Your task to perform on an android device: Go to Android settings Image 0: 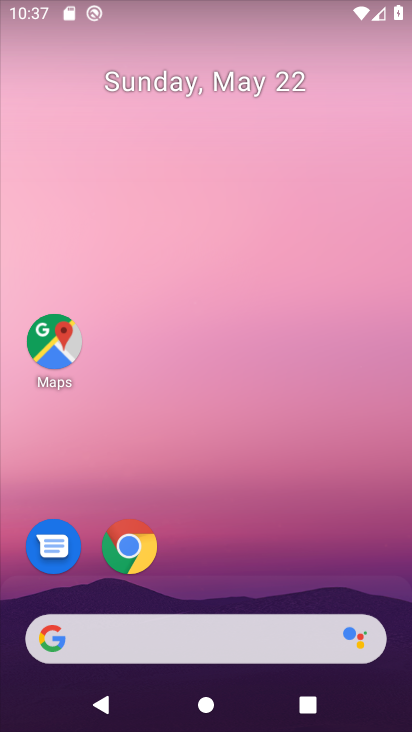
Step 0: drag from (228, 663) to (284, 69)
Your task to perform on an android device: Go to Android settings Image 1: 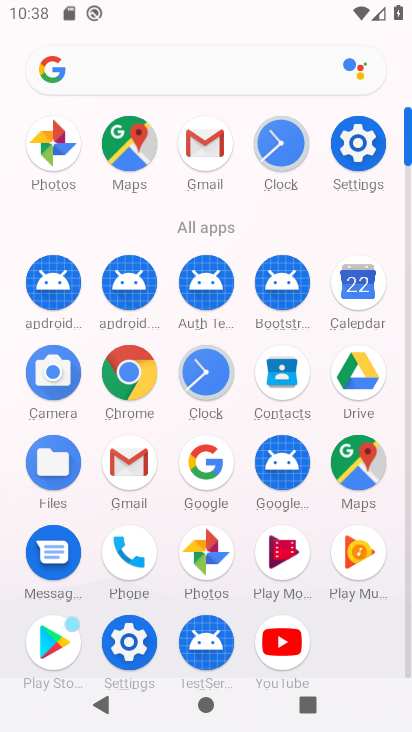
Step 1: click (362, 179)
Your task to perform on an android device: Go to Android settings Image 2: 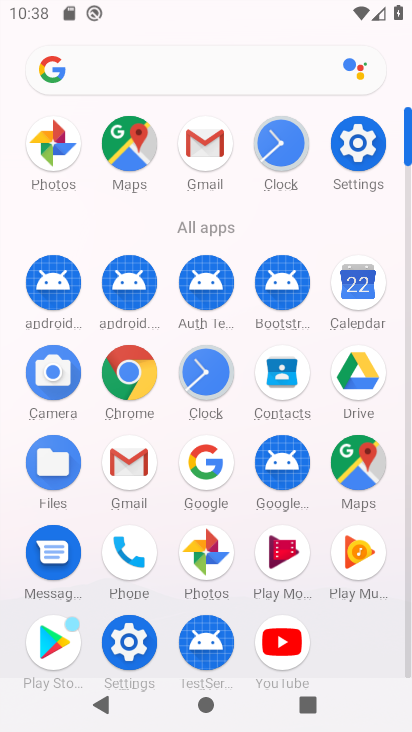
Step 2: click (364, 149)
Your task to perform on an android device: Go to Android settings Image 3: 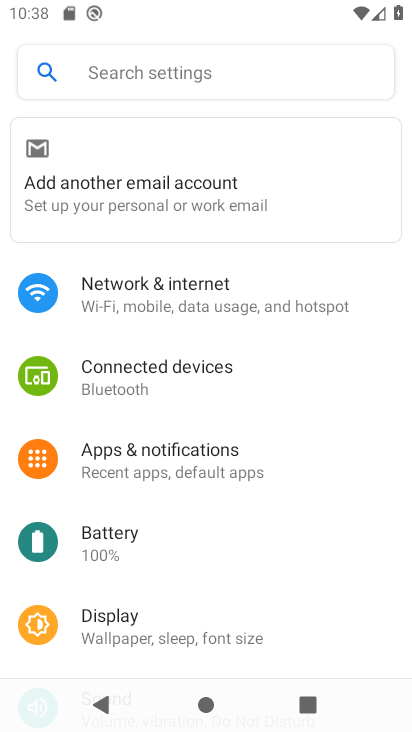
Step 3: drag from (224, 534) to (223, 184)
Your task to perform on an android device: Go to Android settings Image 4: 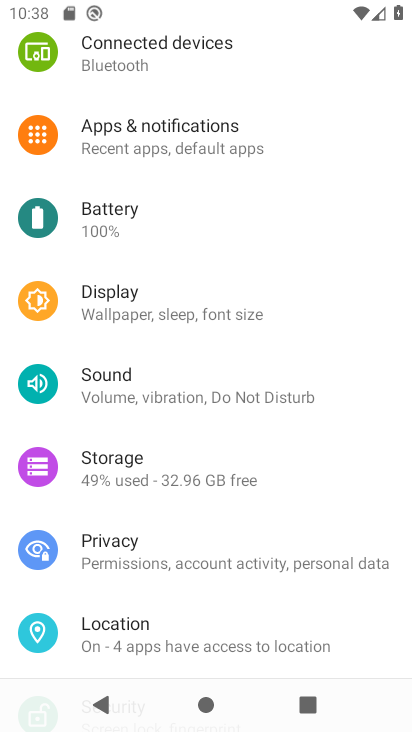
Step 4: drag from (275, 197) to (302, 93)
Your task to perform on an android device: Go to Android settings Image 5: 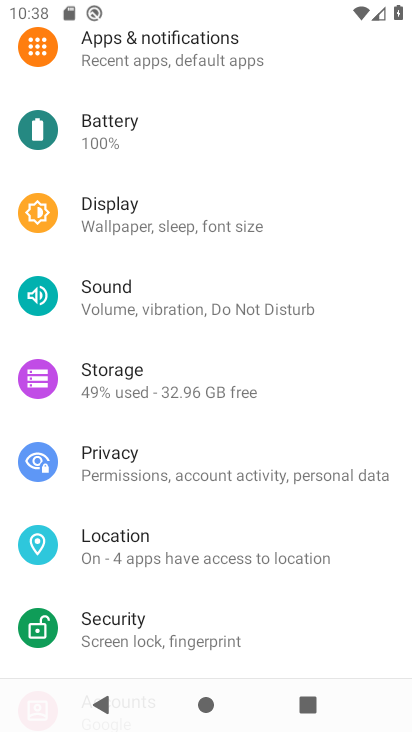
Step 5: drag from (235, 474) to (292, 108)
Your task to perform on an android device: Go to Android settings Image 6: 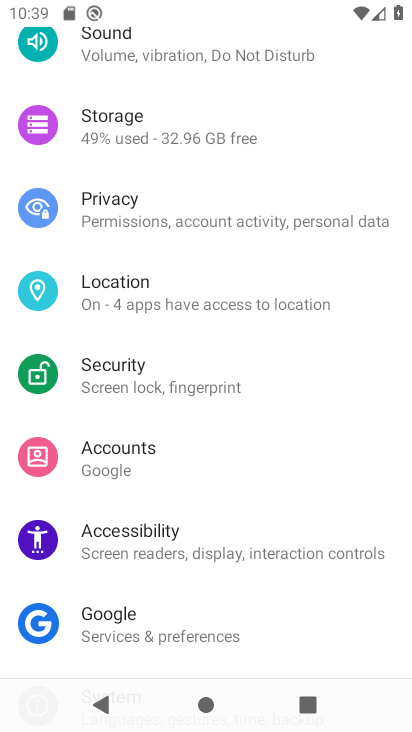
Step 6: drag from (196, 558) to (305, 40)
Your task to perform on an android device: Go to Android settings Image 7: 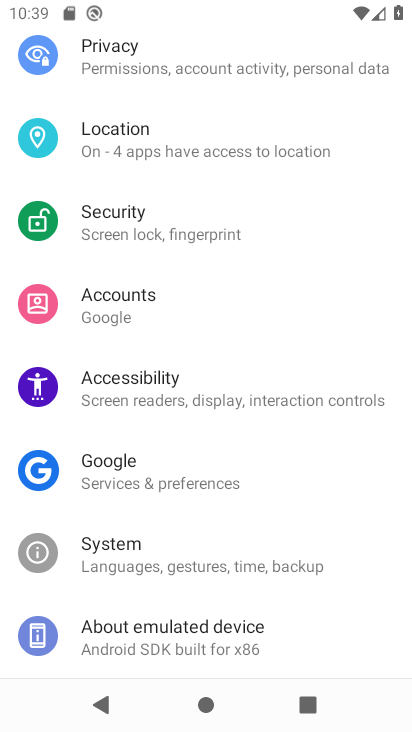
Step 7: click (215, 627)
Your task to perform on an android device: Go to Android settings Image 8: 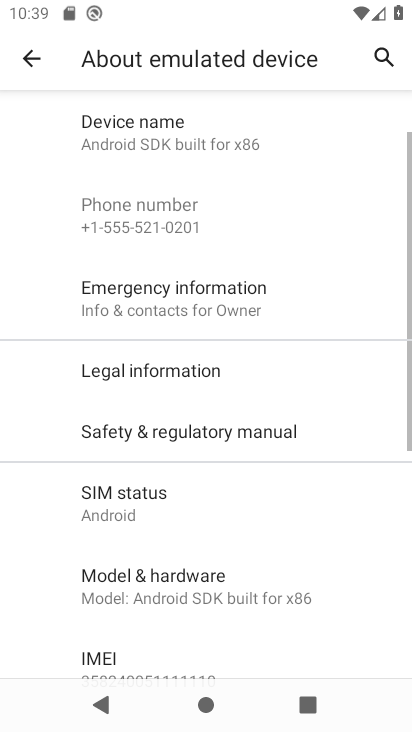
Step 8: drag from (181, 545) to (234, 125)
Your task to perform on an android device: Go to Android settings Image 9: 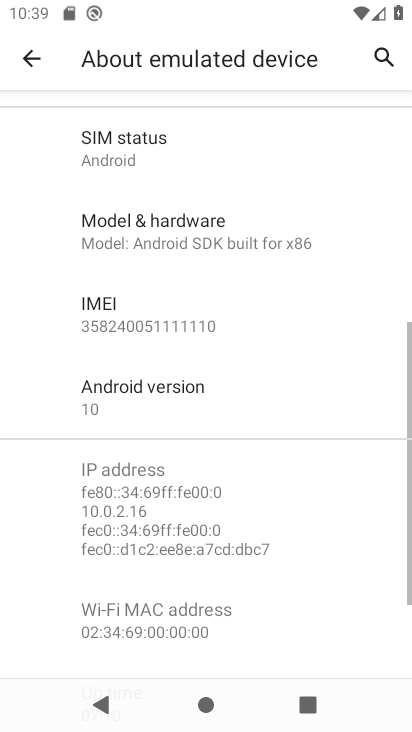
Step 9: click (176, 397)
Your task to perform on an android device: Go to Android settings Image 10: 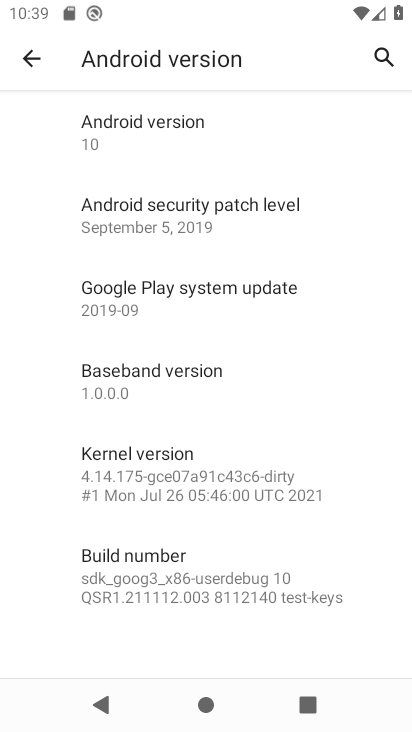
Step 10: click (192, 130)
Your task to perform on an android device: Go to Android settings Image 11: 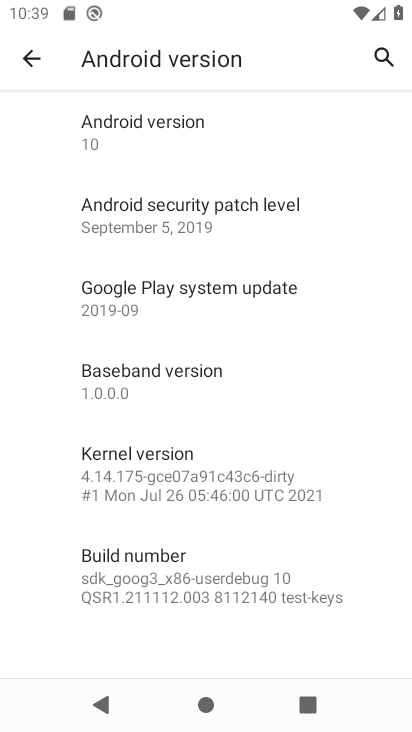
Step 11: task complete